Your task to perform on an android device: Clear the cart on ebay.com. Search for "rayovac triple a" on ebay.com, select the first entry, add it to the cart, then select checkout. Image 0: 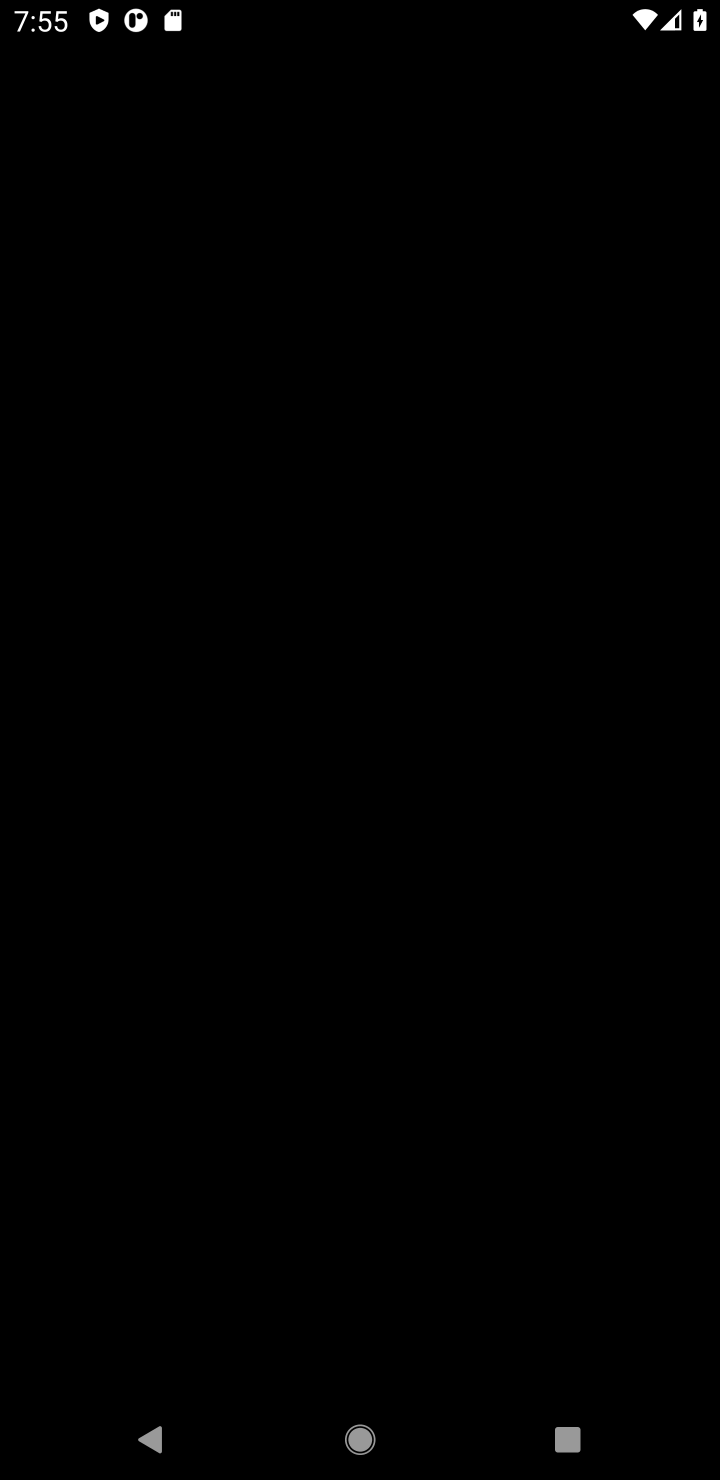
Step 0: press home button
Your task to perform on an android device: Clear the cart on ebay.com. Search for "rayovac triple a" on ebay.com, select the first entry, add it to the cart, then select checkout. Image 1: 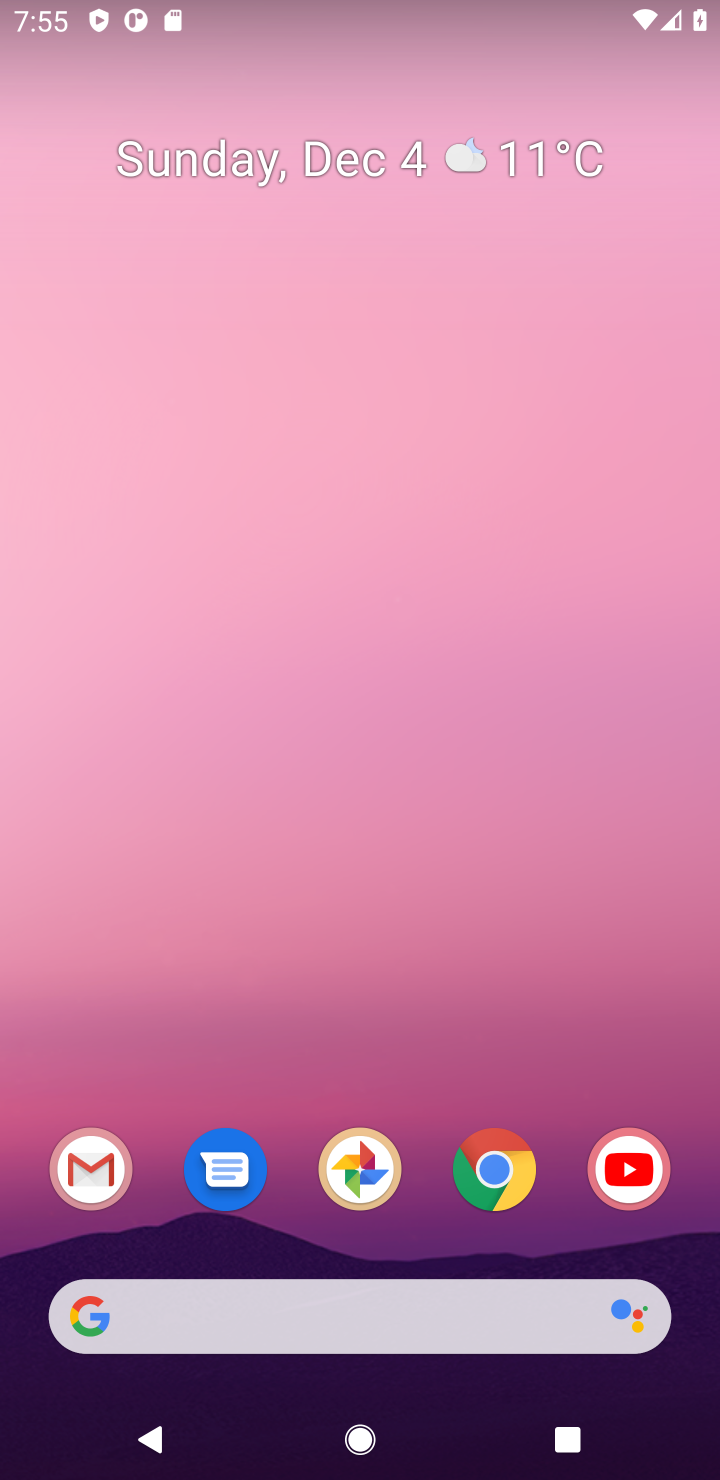
Step 1: drag from (458, 1234) to (434, 11)
Your task to perform on an android device: Clear the cart on ebay.com. Search for "rayovac triple a" on ebay.com, select the first entry, add it to the cart, then select checkout. Image 2: 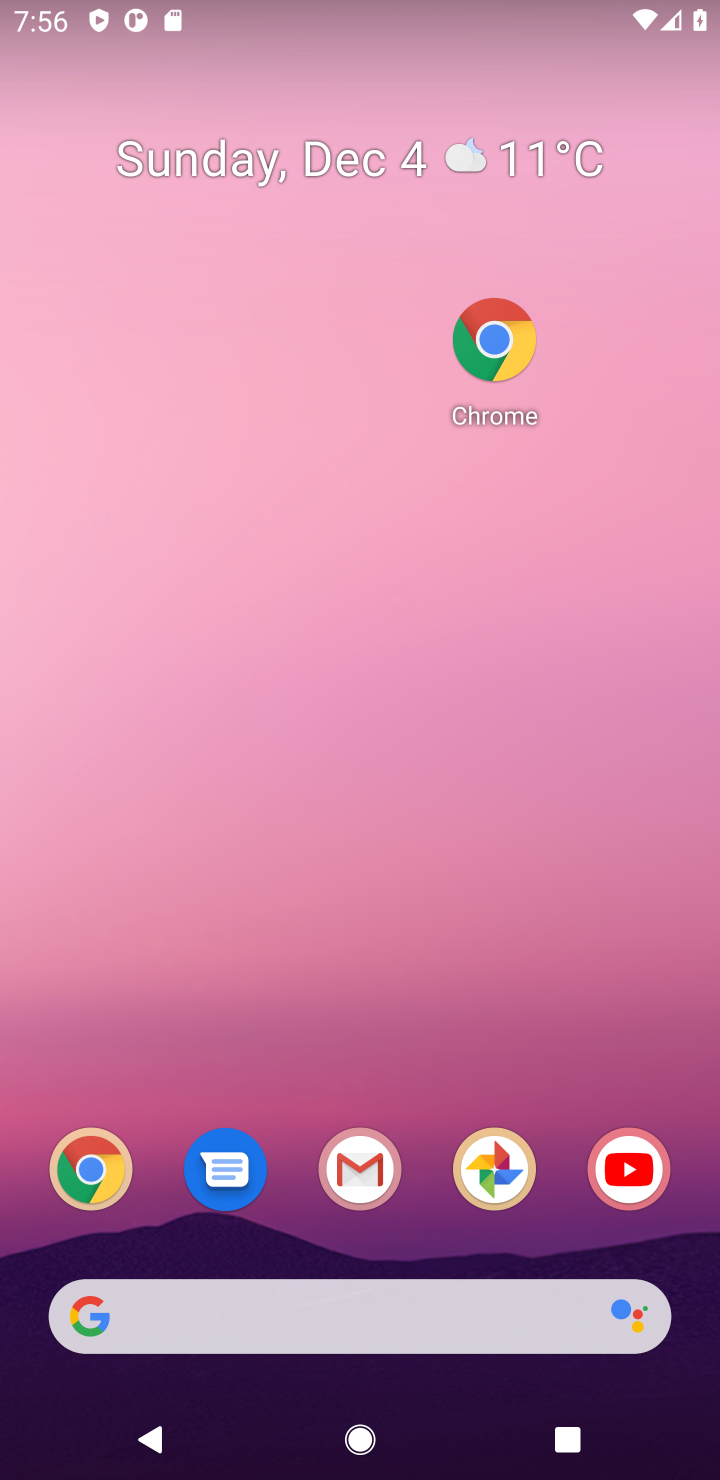
Step 2: drag from (463, 1407) to (585, 13)
Your task to perform on an android device: Clear the cart on ebay.com. Search for "rayovac triple a" on ebay.com, select the first entry, add it to the cart, then select checkout. Image 3: 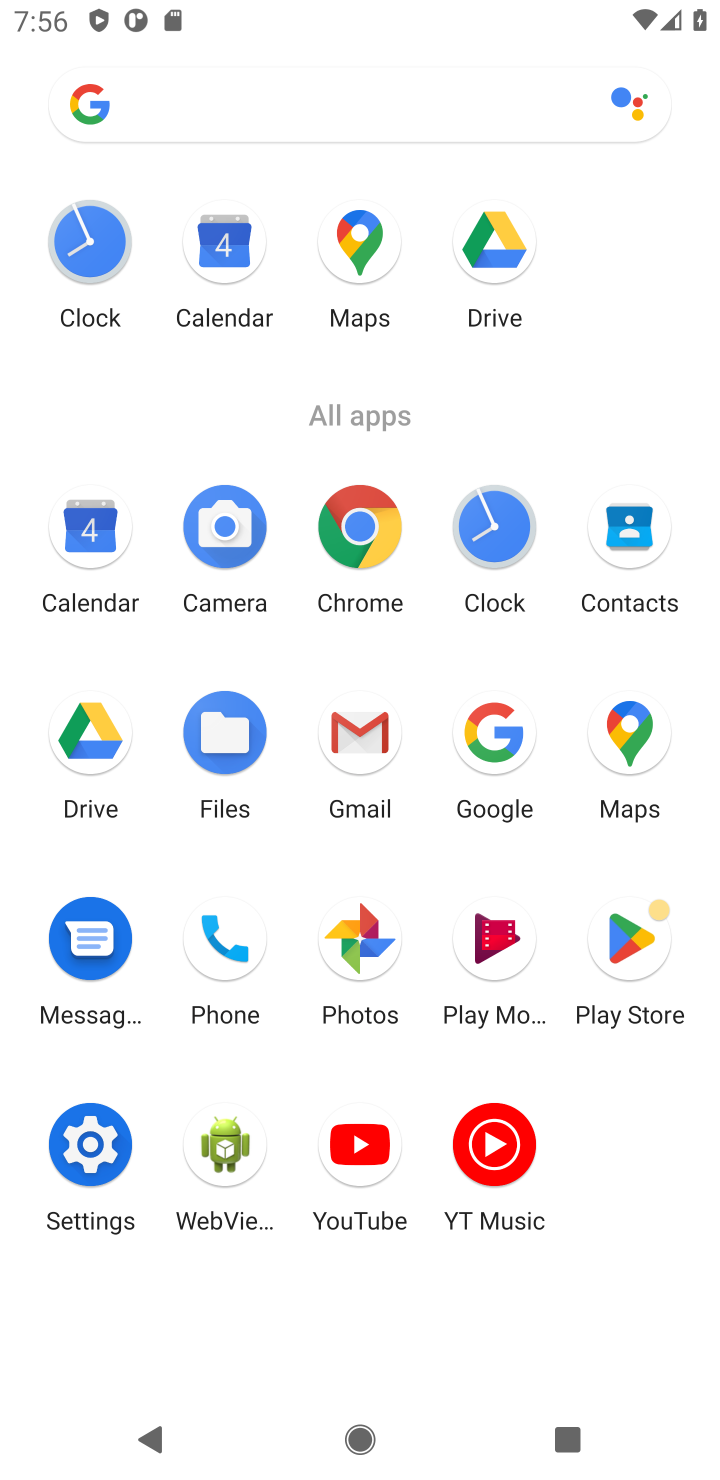
Step 3: click (367, 515)
Your task to perform on an android device: Clear the cart on ebay.com. Search for "rayovac triple a" on ebay.com, select the first entry, add it to the cart, then select checkout. Image 4: 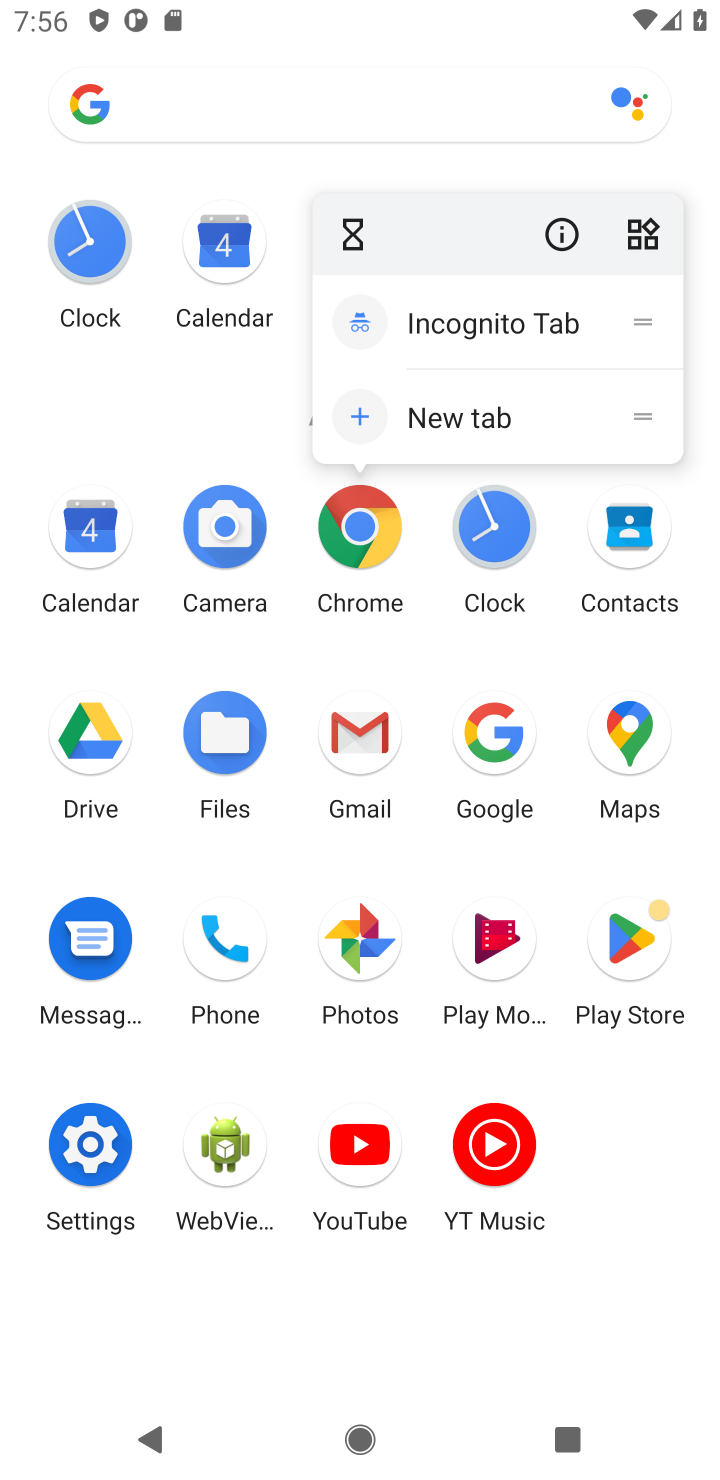
Step 4: click (354, 530)
Your task to perform on an android device: Clear the cart on ebay.com. Search for "rayovac triple a" on ebay.com, select the first entry, add it to the cart, then select checkout. Image 5: 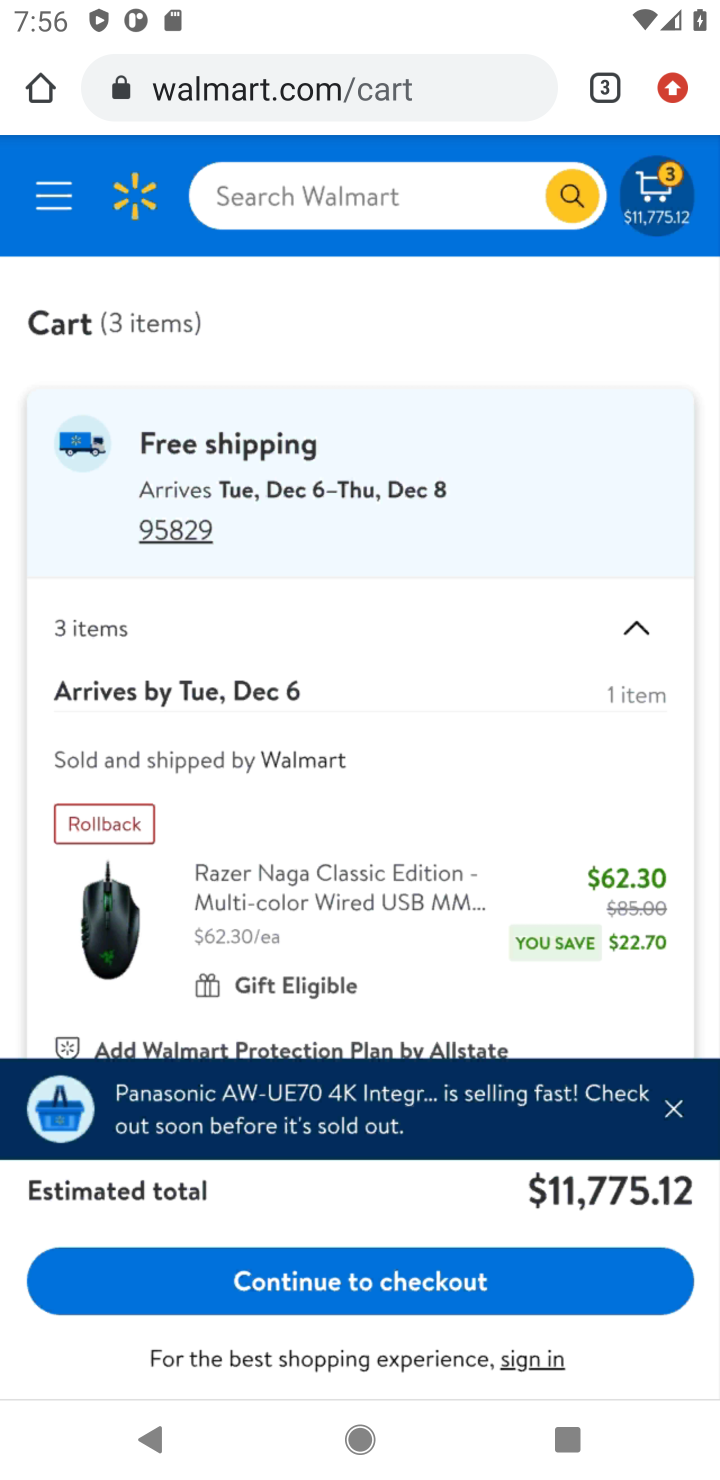
Step 5: click (235, 87)
Your task to perform on an android device: Clear the cart on ebay.com. Search for "rayovac triple a" on ebay.com, select the first entry, add it to the cart, then select checkout. Image 6: 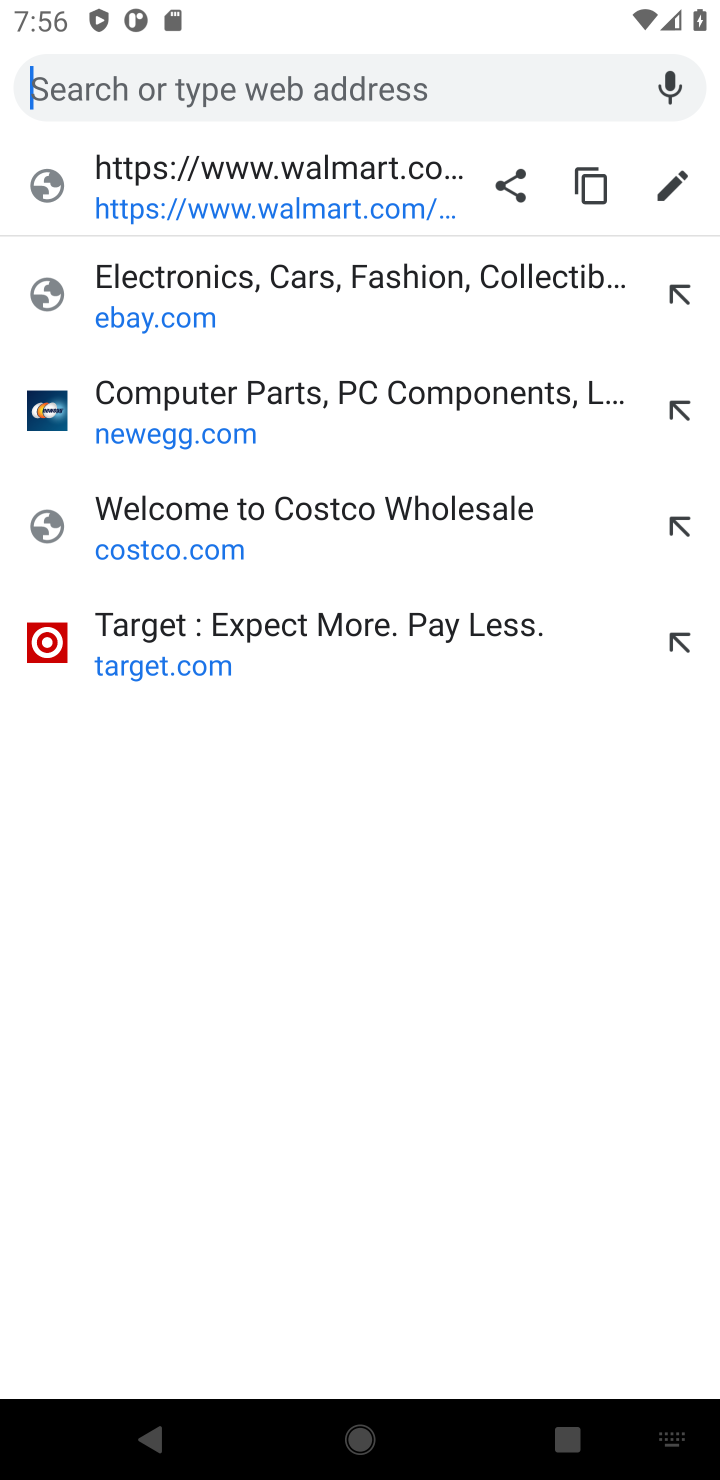
Step 6: type "ebay.com"
Your task to perform on an android device: Clear the cart on ebay.com. Search for "rayovac triple a" on ebay.com, select the first entry, add it to the cart, then select checkout. Image 7: 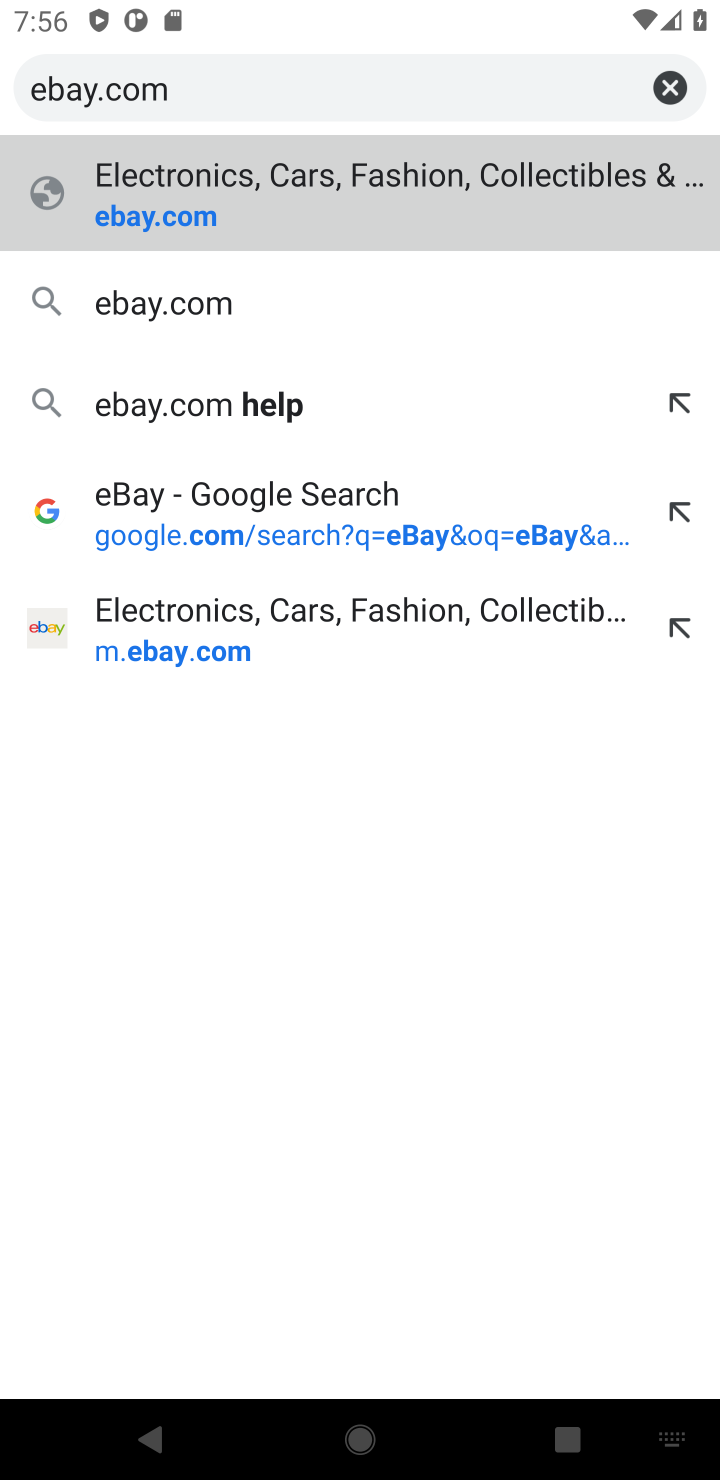
Step 7: type ""
Your task to perform on an android device: Clear the cart on ebay.com. Search for "rayovac triple a" on ebay.com, select the first entry, add it to the cart, then select checkout. Image 8: 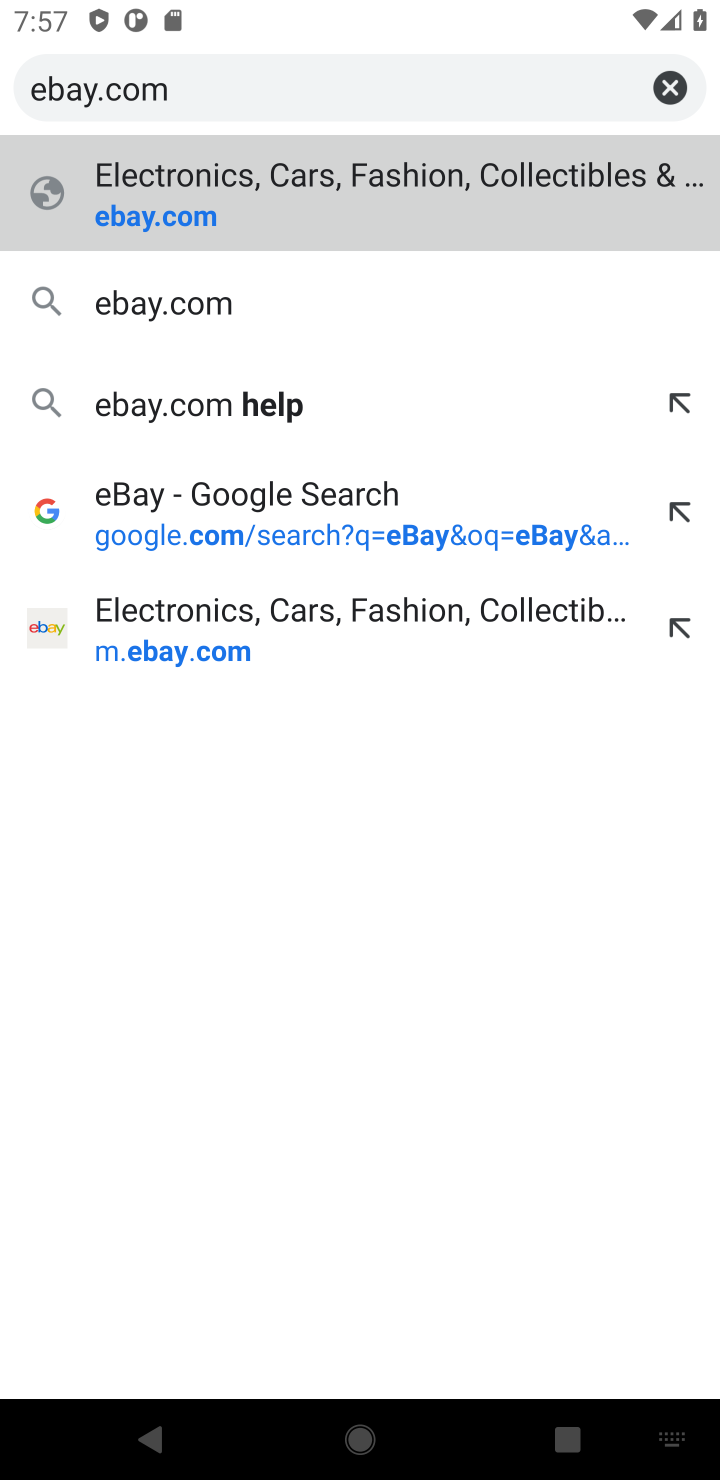
Step 8: click (180, 209)
Your task to perform on an android device: Clear the cart on ebay.com. Search for "rayovac triple a" on ebay.com, select the first entry, add it to the cart, then select checkout. Image 9: 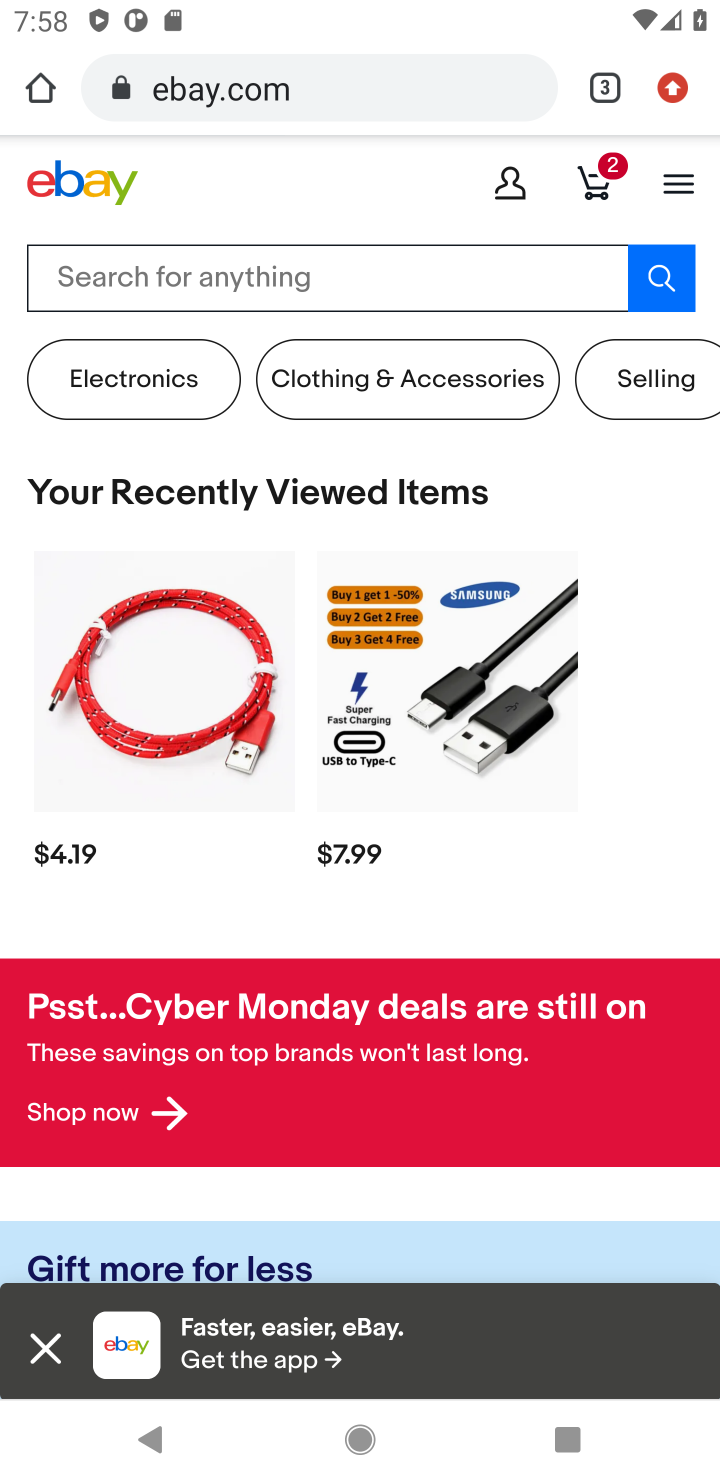
Step 9: click (595, 173)
Your task to perform on an android device: Clear the cart on ebay.com. Search for "rayovac triple a" on ebay.com, select the first entry, add it to the cart, then select checkout. Image 10: 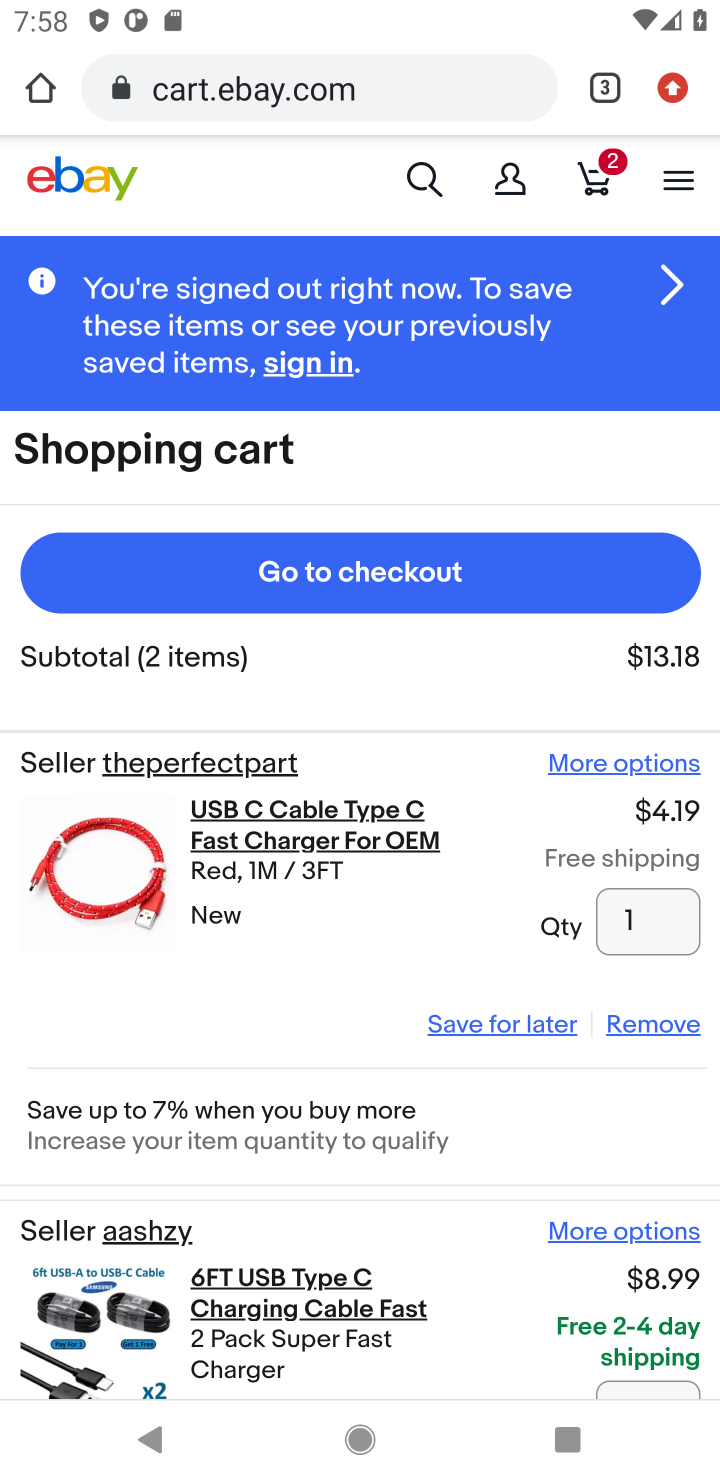
Step 10: click (645, 1022)
Your task to perform on an android device: Clear the cart on ebay.com. Search for "rayovac triple a" on ebay.com, select the first entry, add it to the cart, then select checkout. Image 11: 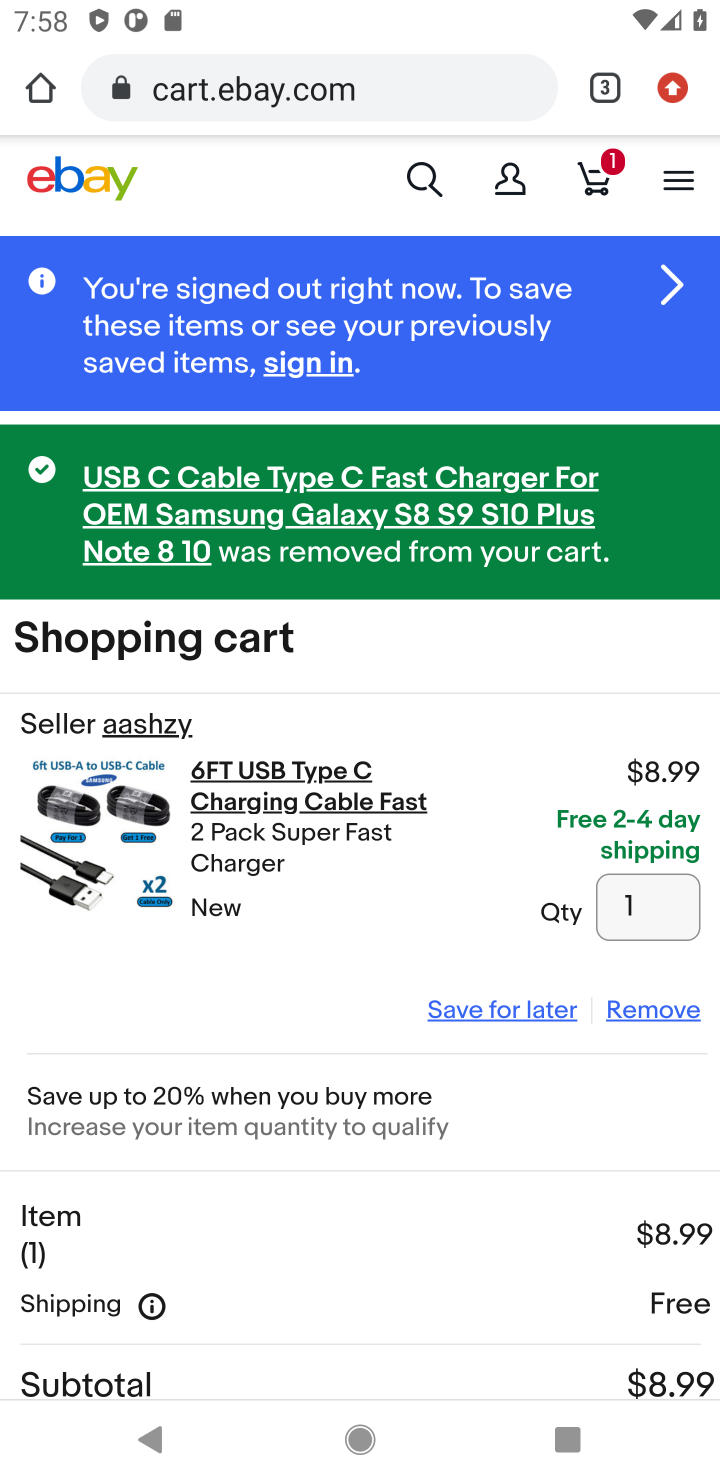
Step 11: click (656, 1015)
Your task to perform on an android device: Clear the cart on ebay.com. Search for "rayovac triple a" on ebay.com, select the first entry, add it to the cart, then select checkout. Image 12: 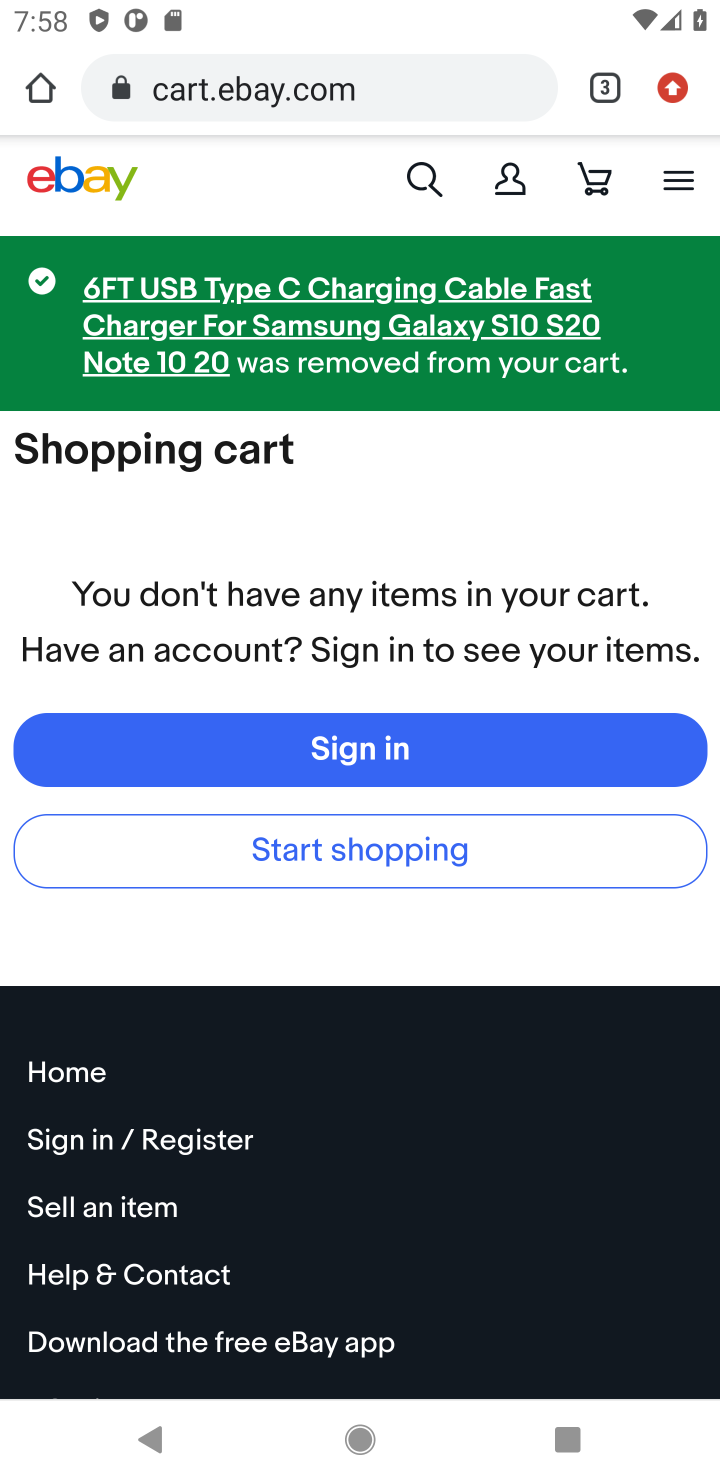
Step 12: click (430, 178)
Your task to perform on an android device: Clear the cart on ebay.com. Search for "rayovac triple a" on ebay.com, select the first entry, add it to the cart, then select checkout. Image 13: 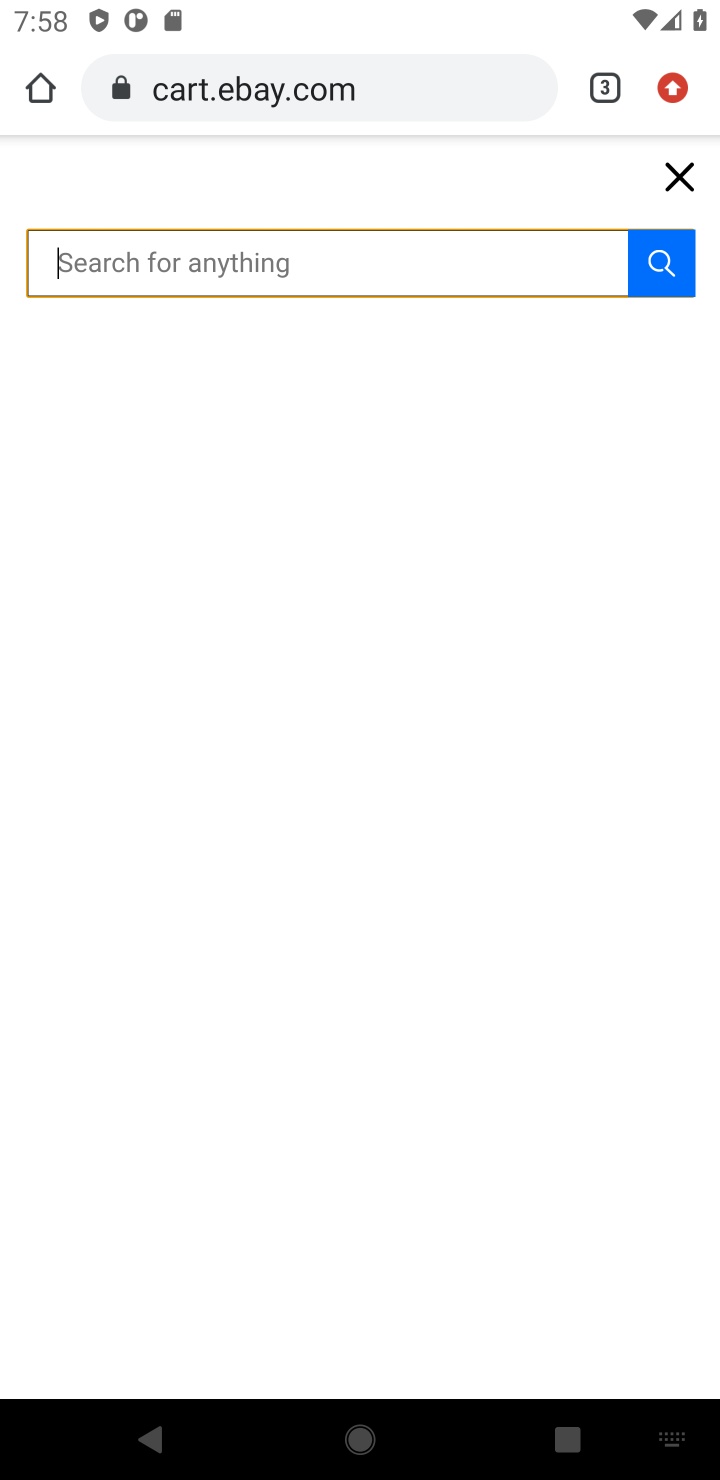
Step 13: type "rayovac triple a"
Your task to perform on an android device: Clear the cart on ebay.com. Search for "rayovac triple a" on ebay.com, select the first entry, add it to the cart, then select checkout. Image 14: 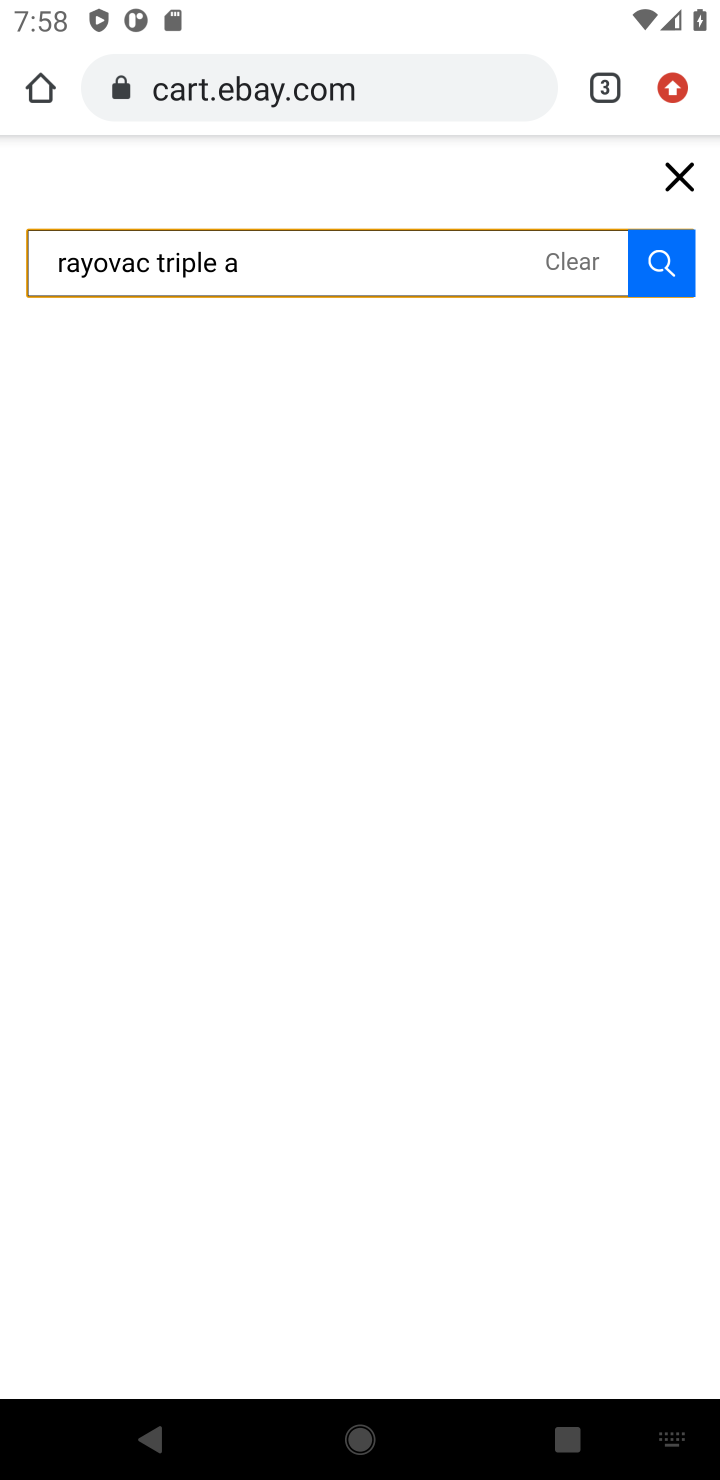
Step 14: type ""
Your task to perform on an android device: Clear the cart on ebay.com. Search for "rayovac triple a" on ebay.com, select the first entry, add it to the cart, then select checkout. Image 15: 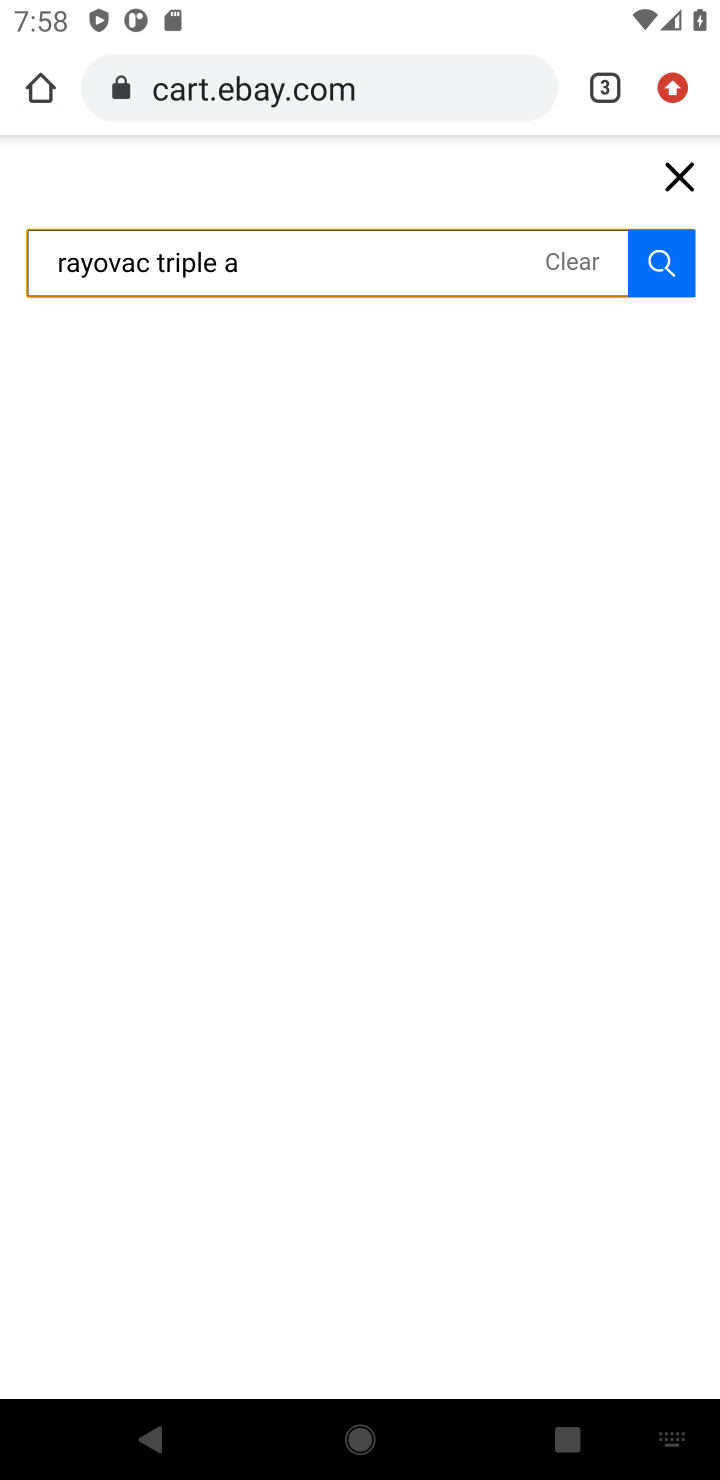
Step 15: click (658, 255)
Your task to perform on an android device: Clear the cart on ebay.com. Search for "rayovac triple a" on ebay.com, select the first entry, add it to the cart, then select checkout. Image 16: 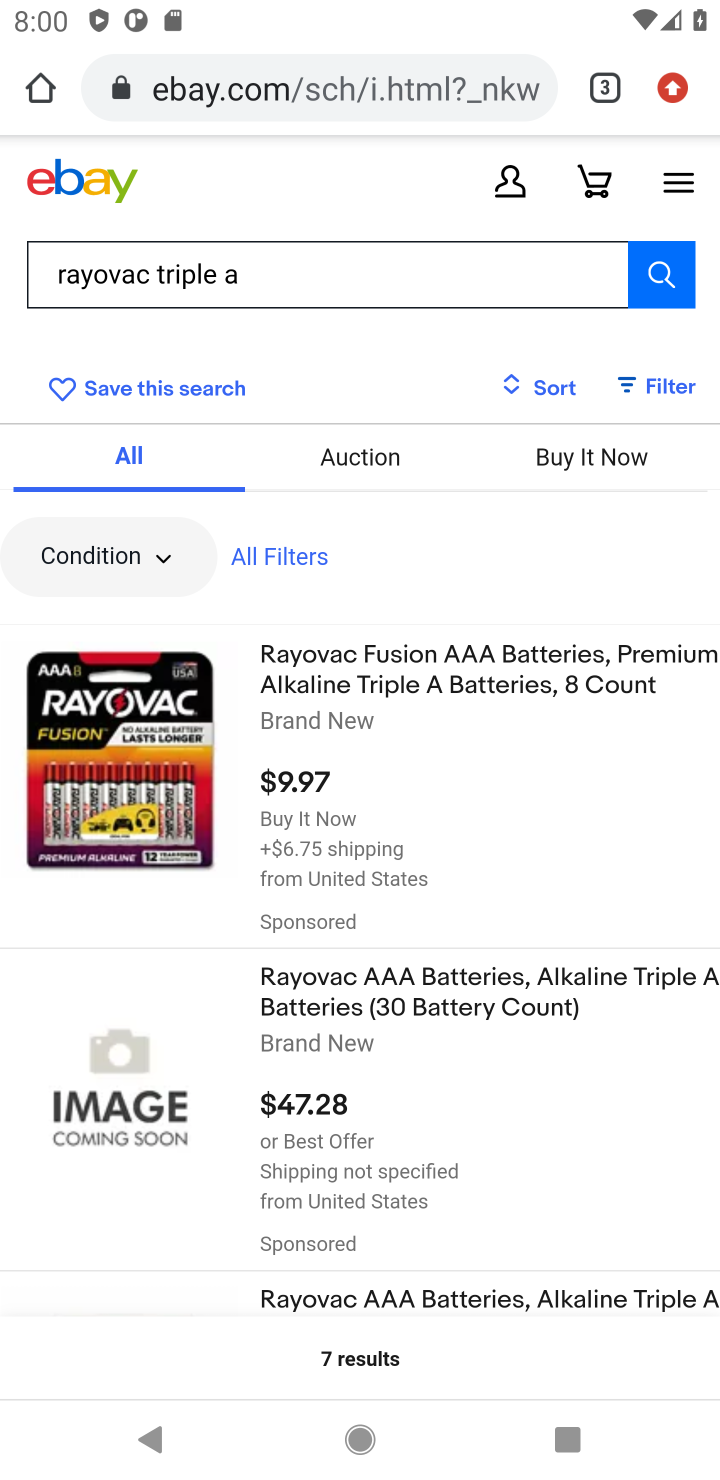
Step 16: click (198, 766)
Your task to perform on an android device: Clear the cart on ebay.com. Search for "rayovac triple a" on ebay.com, select the first entry, add it to the cart, then select checkout. Image 17: 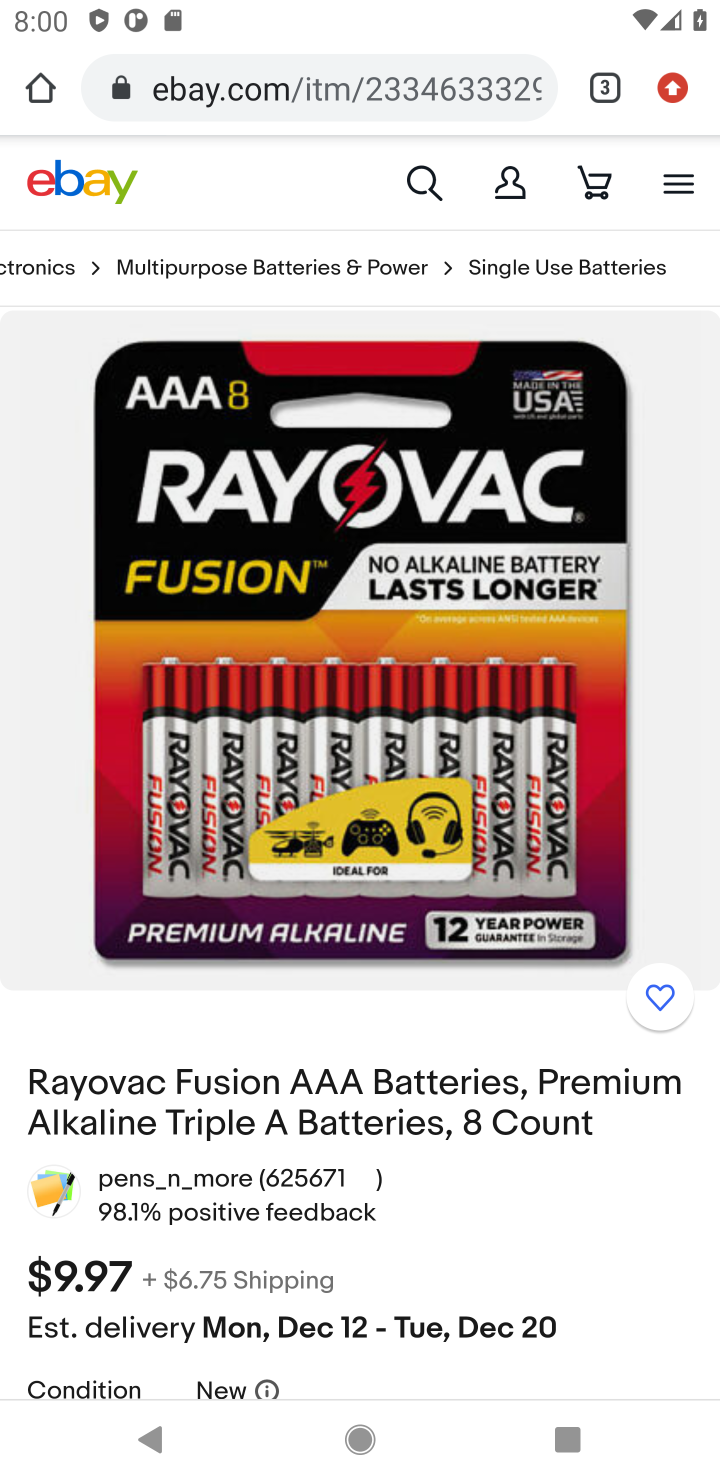
Step 17: drag from (364, 1183) to (415, 391)
Your task to perform on an android device: Clear the cart on ebay.com. Search for "rayovac triple a" on ebay.com, select the first entry, add it to the cart, then select checkout. Image 18: 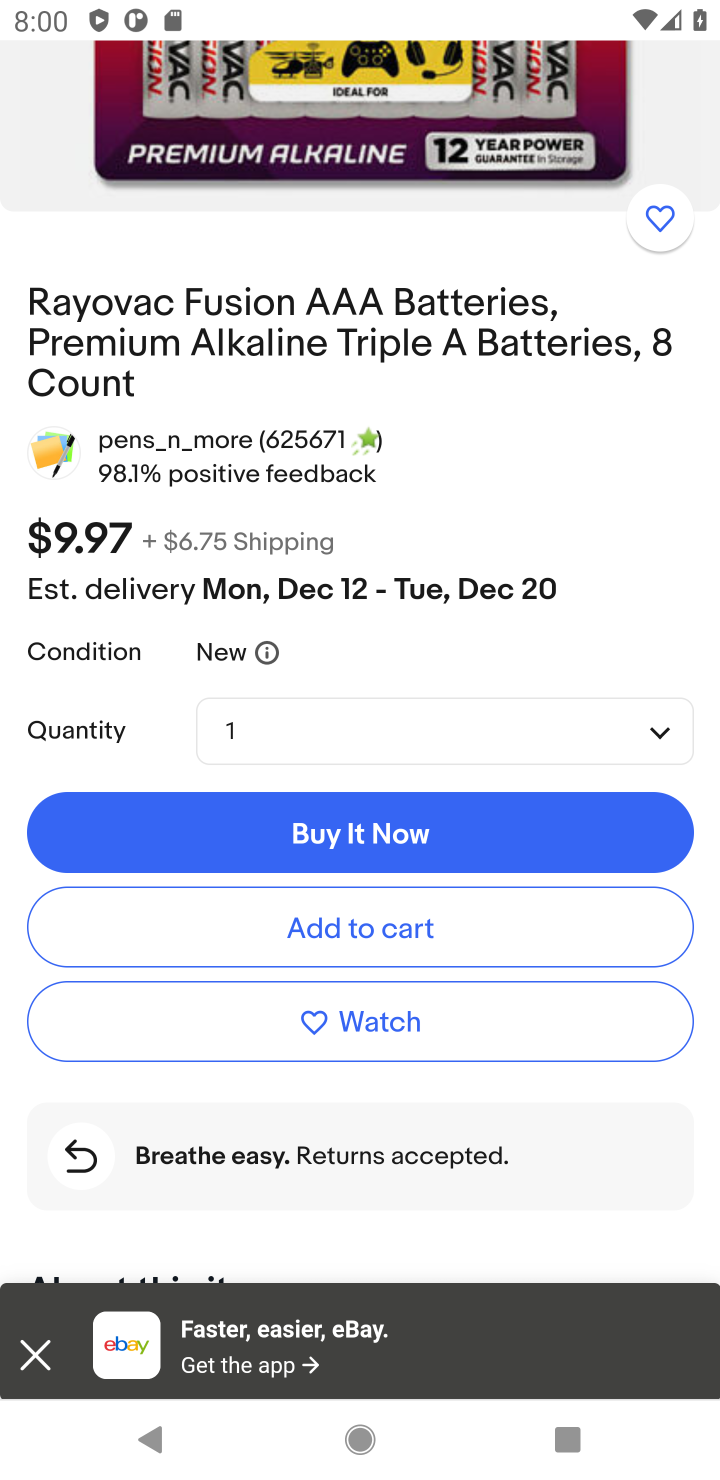
Step 18: click (359, 931)
Your task to perform on an android device: Clear the cart on ebay.com. Search for "rayovac triple a" on ebay.com, select the first entry, add it to the cart, then select checkout. Image 19: 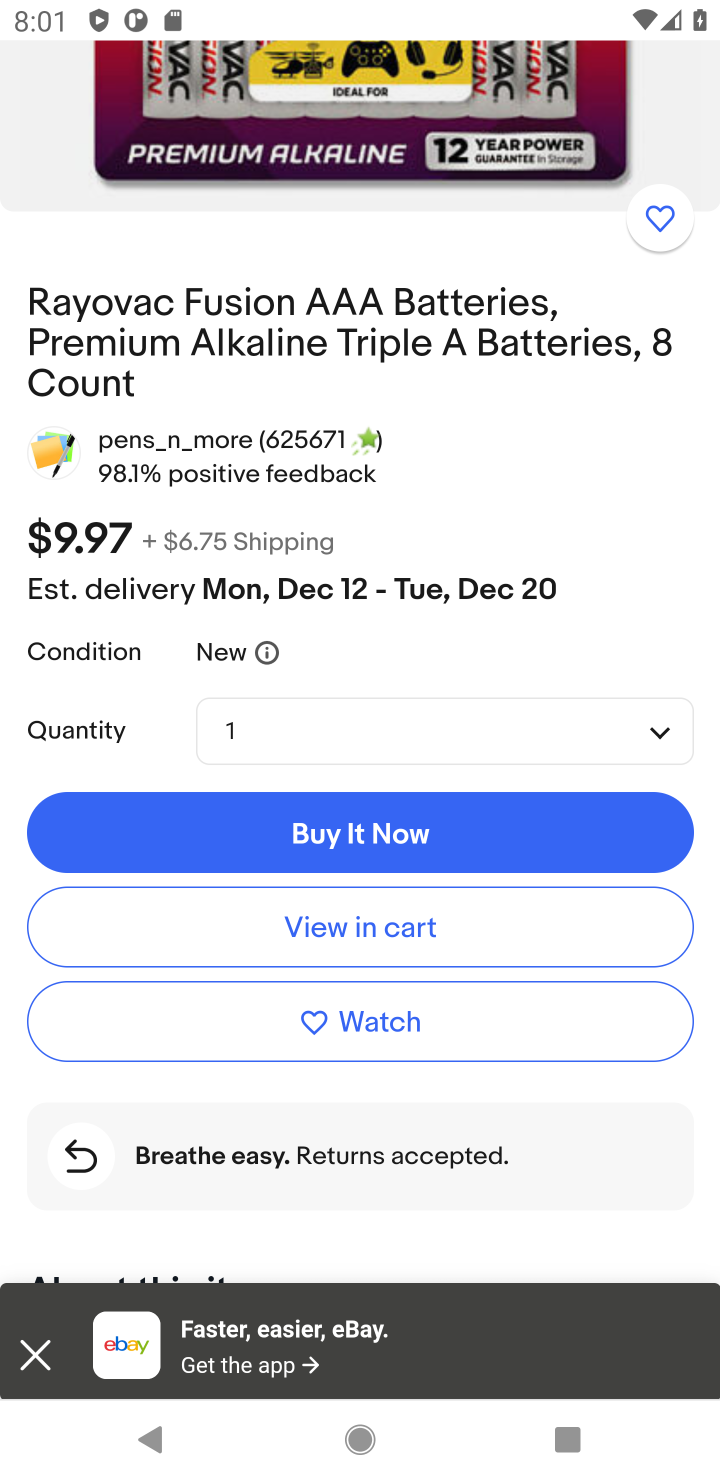
Step 19: task complete